Your task to perform on an android device: What's the weather today? Image 0: 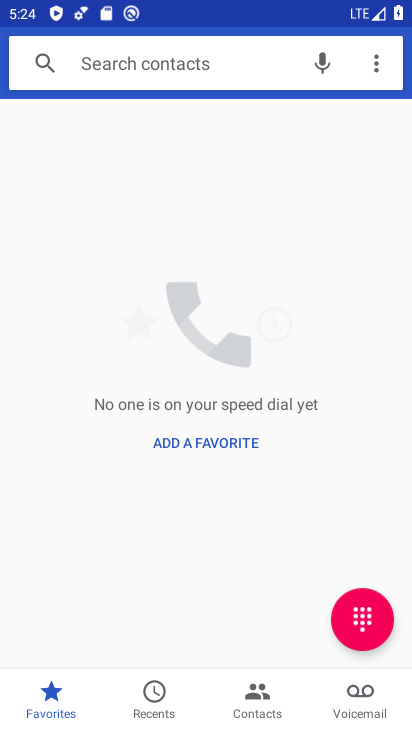
Step 0: press home button
Your task to perform on an android device: What's the weather today? Image 1: 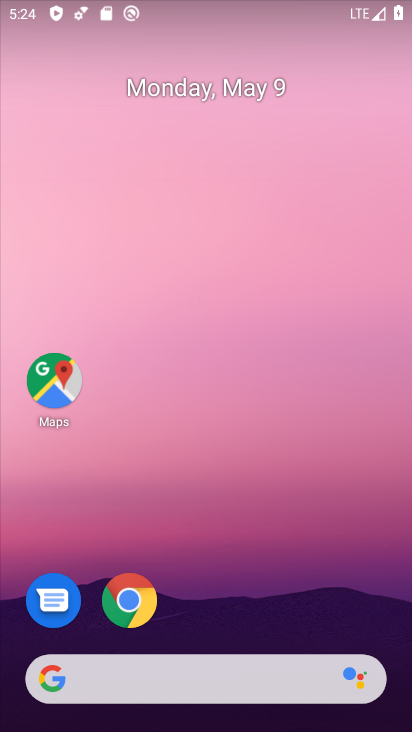
Step 1: click (184, 694)
Your task to perform on an android device: What's the weather today? Image 2: 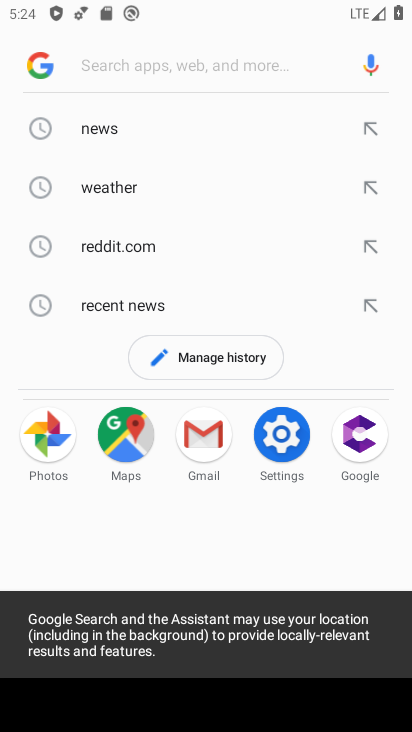
Step 2: click (123, 182)
Your task to perform on an android device: What's the weather today? Image 3: 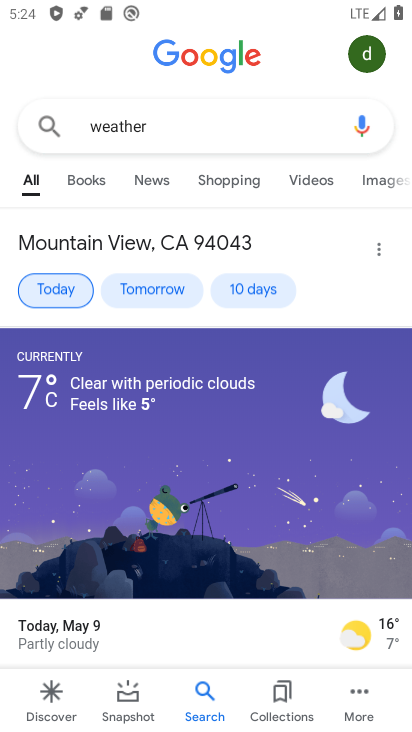
Step 3: task complete